Your task to perform on an android device: turn on wifi Image 0: 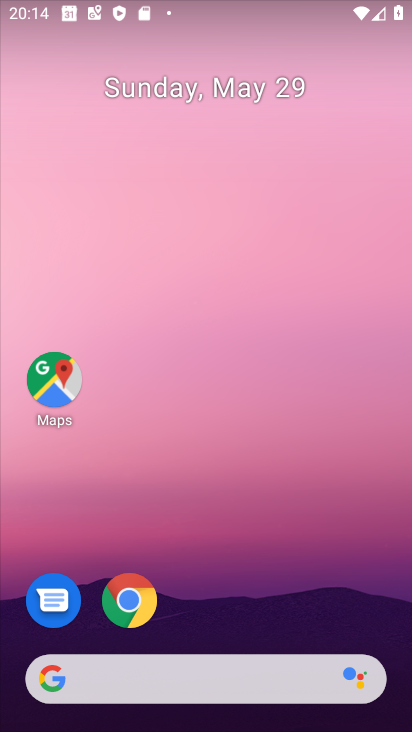
Step 0: drag from (261, 575) to (256, 191)
Your task to perform on an android device: turn on wifi Image 1: 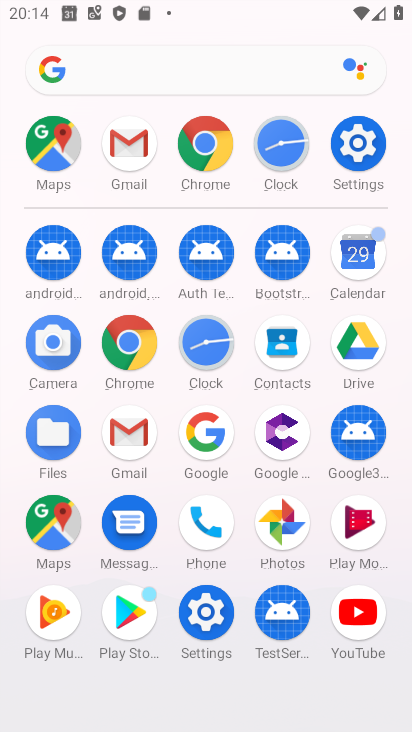
Step 1: click (366, 159)
Your task to perform on an android device: turn on wifi Image 2: 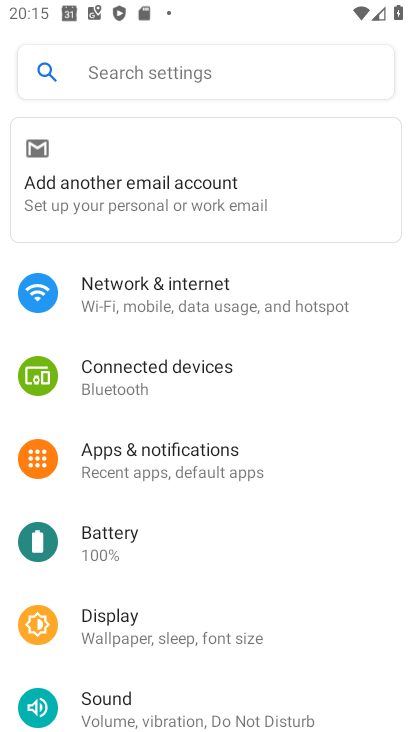
Step 2: click (242, 325)
Your task to perform on an android device: turn on wifi Image 3: 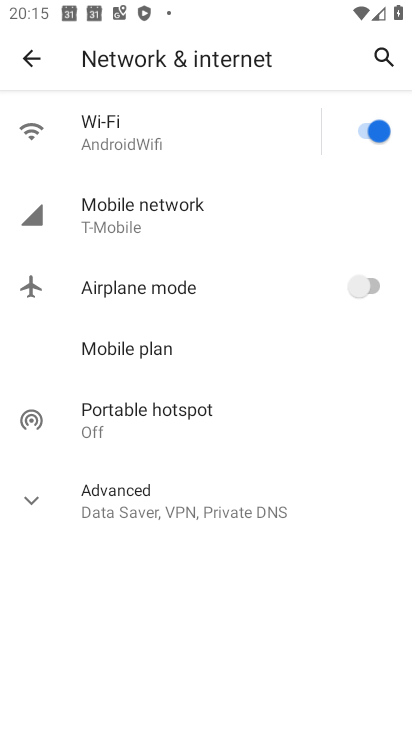
Step 3: task complete